Your task to perform on an android device: Open calendar and show me the fourth week of next month Image 0: 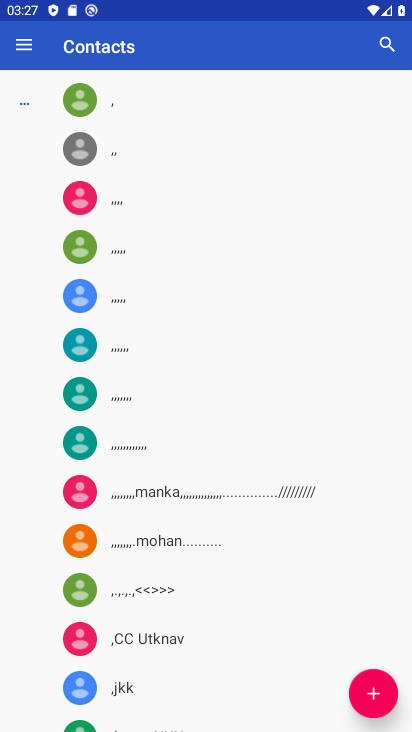
Step 0: press home button
Your task to perform on an android device: Open calendar and show me the fourth week of next month Image 1: 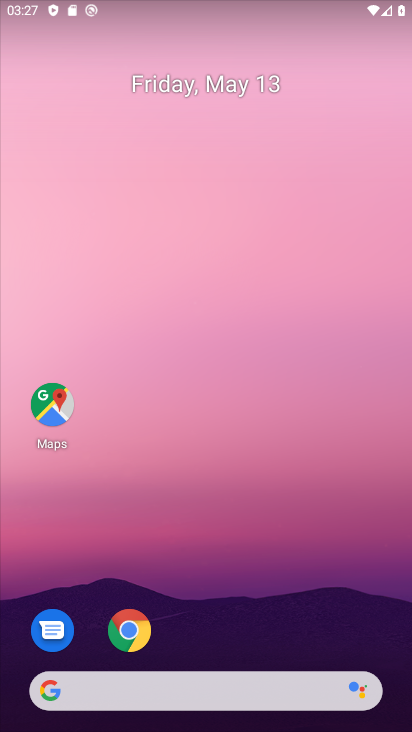
Step 1: drag from (216, 669) to (167, 25)
Your task to perform on an android device: Open calendar and show me the fourth week of next month Image 2: 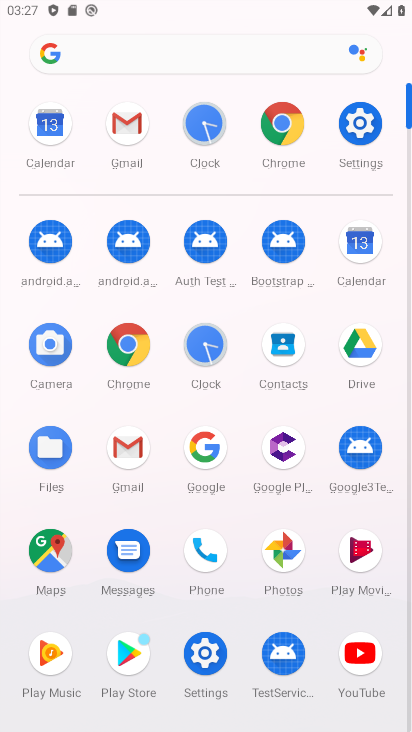
Step 2: click (347, 250)
Your task to perform on an android device: Open calendar and show me the fourth week of next month Image 3: 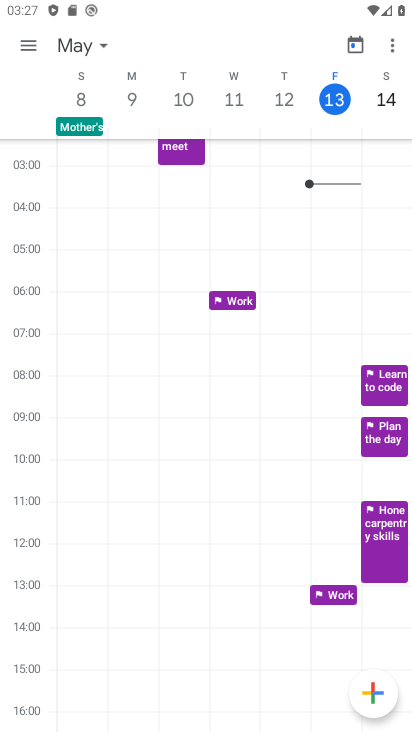
Step 3: task complete